Your task to perform on an android device: Search for Mexican restaurants on Maps Image 0: 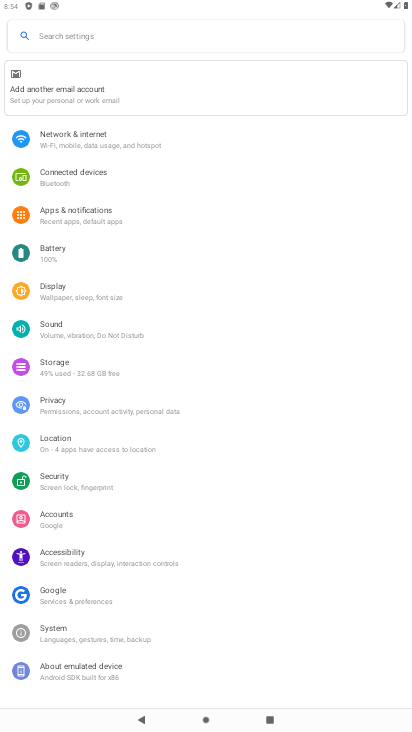
Step 0: press home button
Your task to perform on an android device: Search for Mexican restaurants on Maps Image 1: 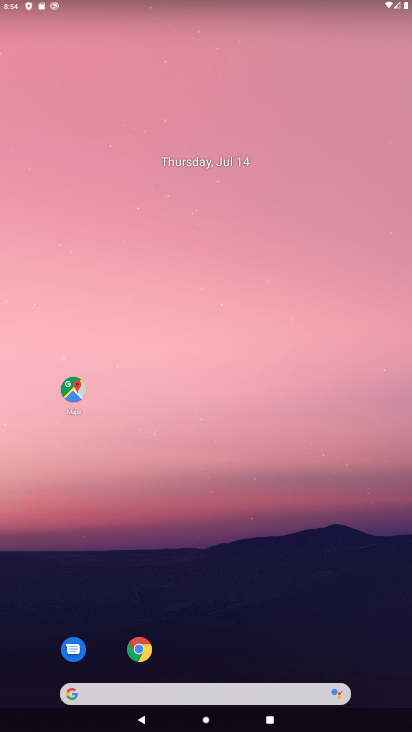
Step 1: drag from (311, 542) to (253, 247)
Your task to perform on an android device: Search for Mexican restaurants on Maps Image 2: 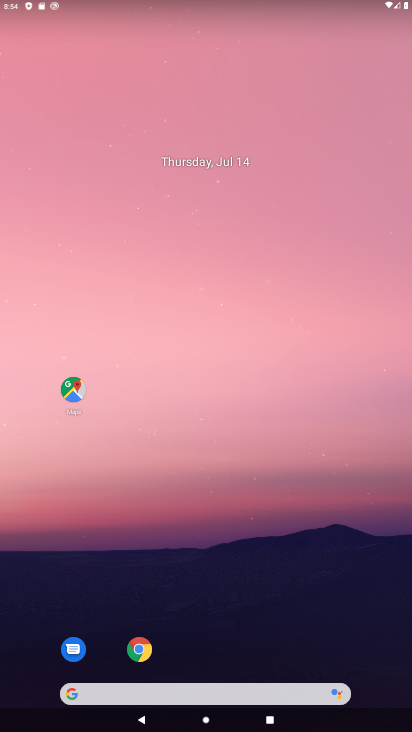
Step 2: click (65, 392)
Your task to perform on an android device: Search for Mexican restaurants on Maps Image 3: 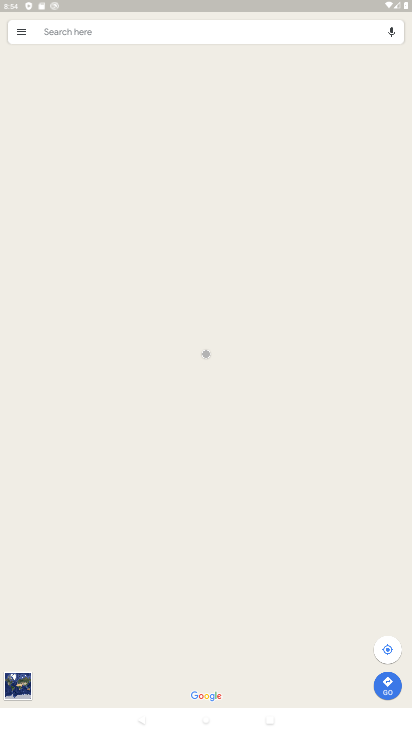
Step 3: click (147, 30)
Your task to perform on an android device: Search for Mexican restaurants on Maps Image 4: 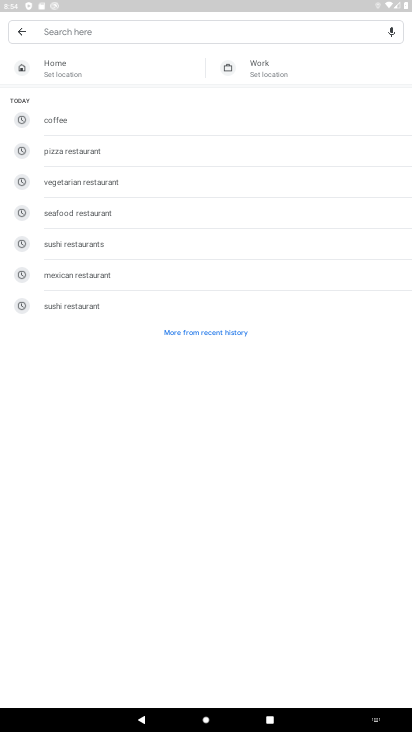
Step 4: click (102, 278)
Your task to perform on an android device: Search for Mexican restaurants on Maps Image 5: 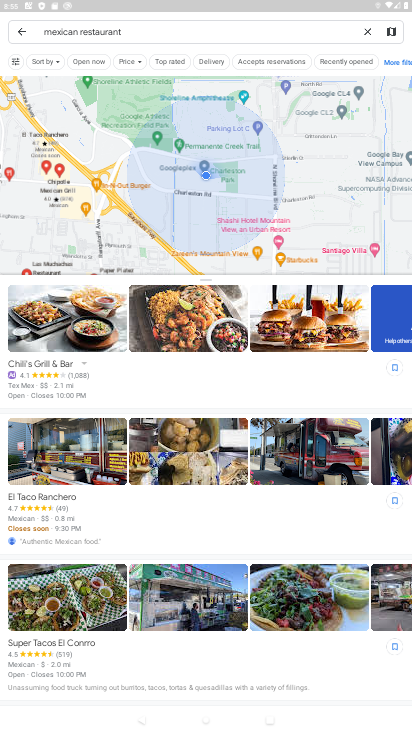
Step 5: task complete